Your task to perform on an android device: turn off javascript in the chrome app Image 0: 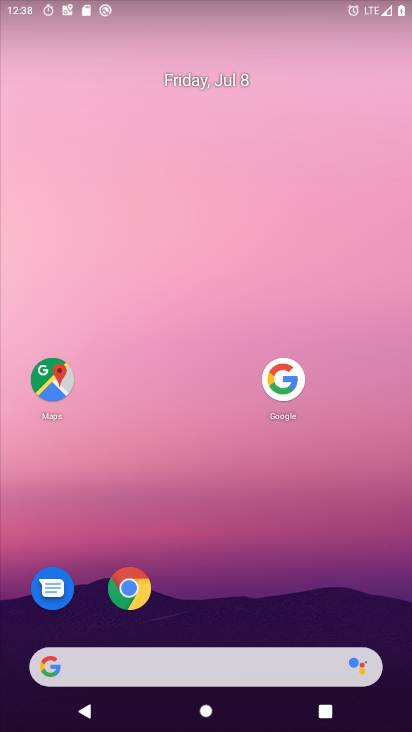
Step 0: drag from (160, 656) to (306, 50)
Your task to perform on an android device: turn off javascript in the chrome app Image 1: 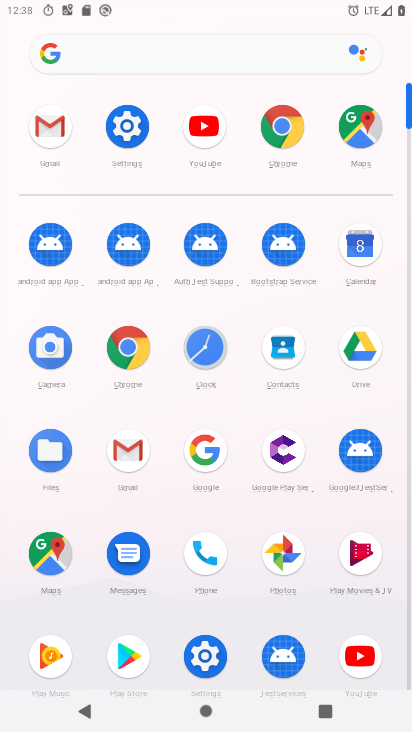
Step 1: click (282, 134)
Your task to perform on an android device: turn off javascript in the chrome app Image 2: 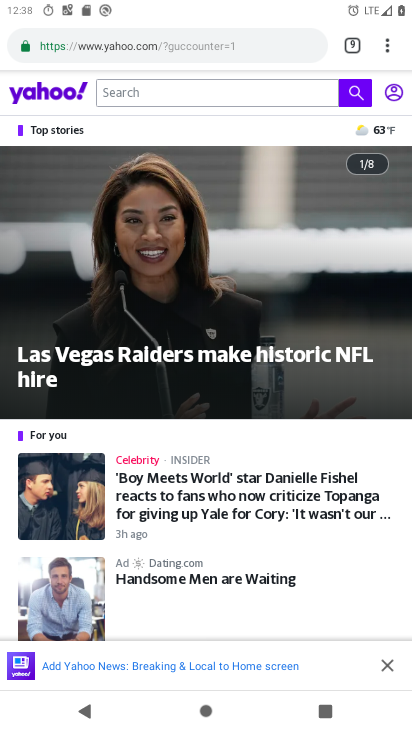
Step 2: drag from (386, 44) to (244, 557)
Your task to perform on an android device: turn off javascript in the chrome app Image 3: 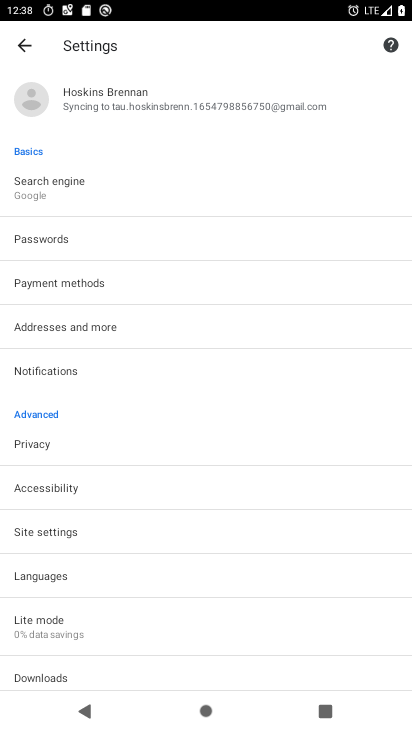
Step 3: click (76, 536)
Your task to perform on an android device: turn off javascript in the chrome app Image 4: 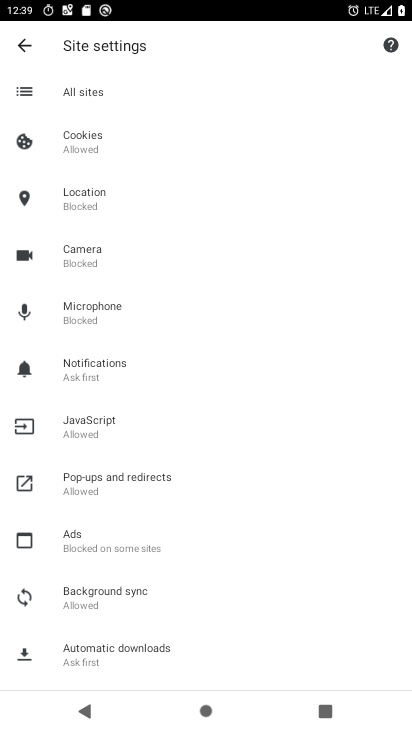
Step 4: click (96, 424)
Your task to perform on an android device: turn off javascript in the chrome app Image 5: 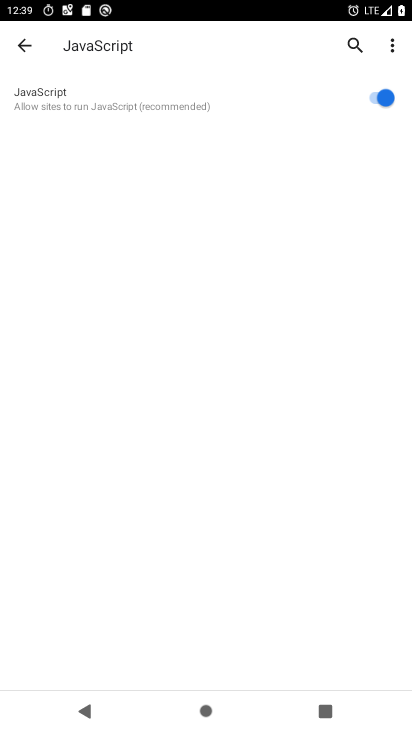
Step 5: click (375, 96)
Your task to perform on an android device: turn off javascript in the chrome app Image 6: 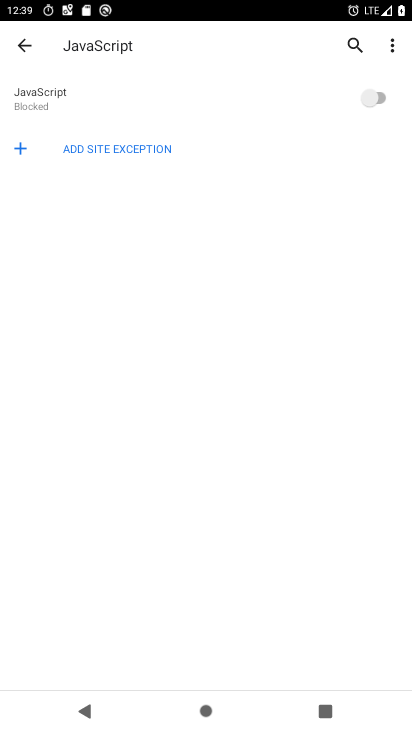
Step 6: task complete